Your task to perform on an android device: open chrome and create a bookmark for the current page Image 0: 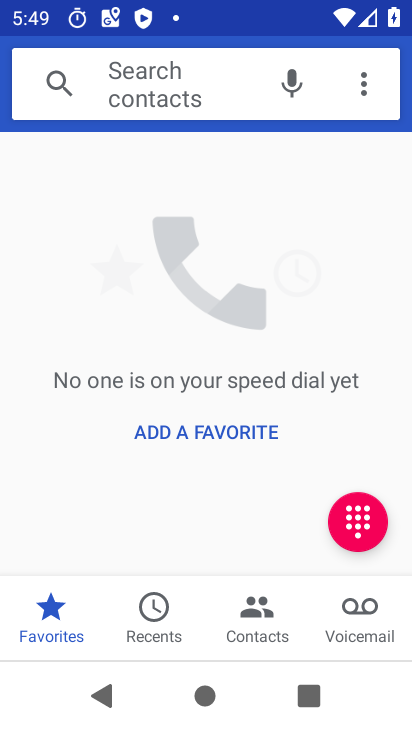
Step 0: press home button
Your task to perform on an android device: open chrome and create a bookmark for the current page Image 1: 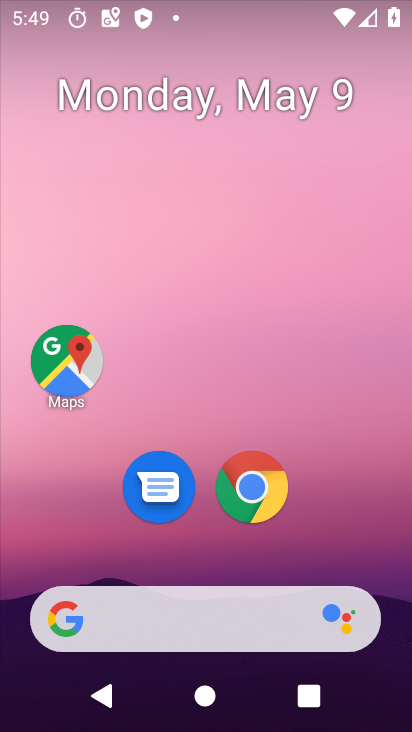
Step 1: click (242, 481)
Your task to perform on an android device: open chrome and create a bookmark for the current page Image 2: 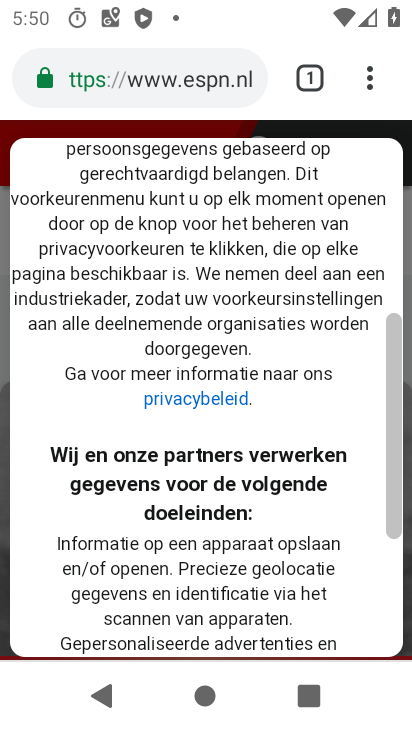
Step 2: click (369, 78)
Your task to perform on an android device: open chrome and create a bookmark for the current page Image 3: 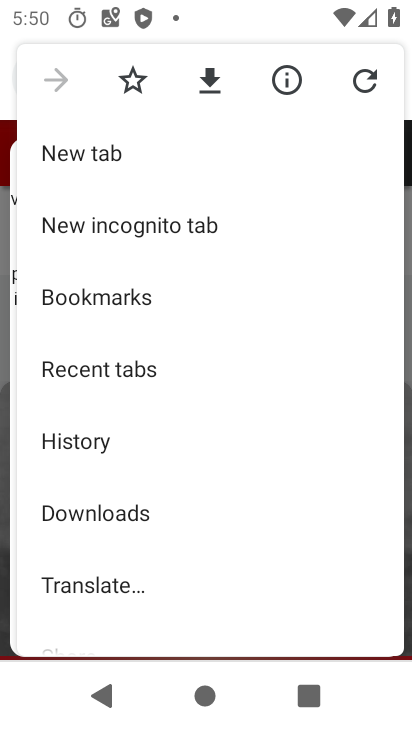
Step 3: click (131, 79)
Your task to perform on an android device: open chrome and create a bookmark for the current page Image 4: 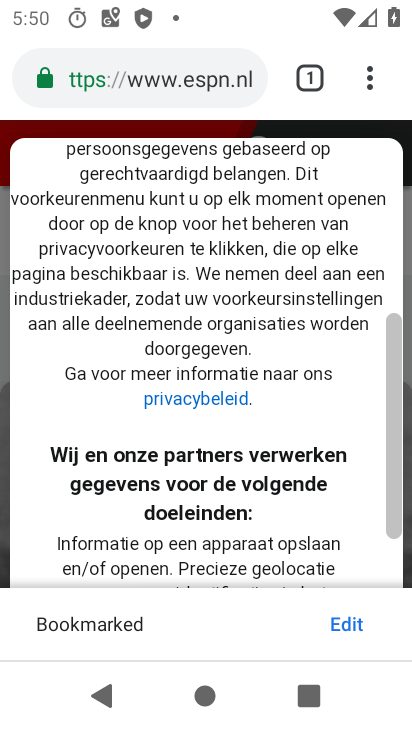
Step 4: task complete